Your task to perform on an android device: move a message to another label in the gmail app Image 0: 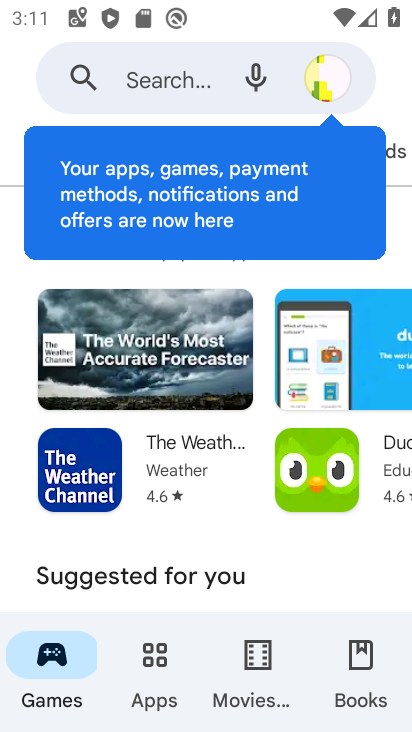
Step 0: press home button
Your task to perform on an android device: move a message to another label in the gmail app Image 1: 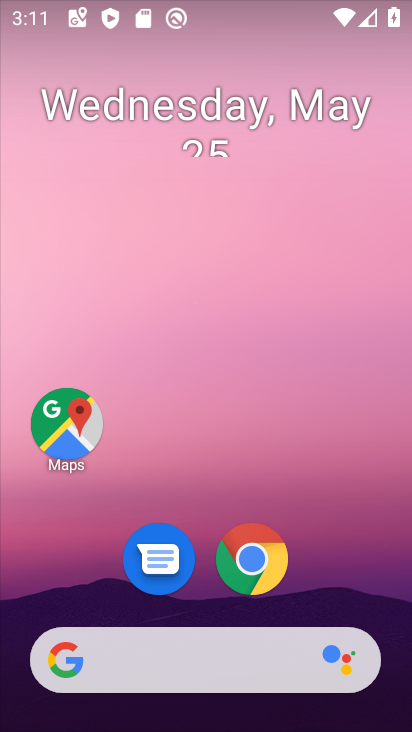
Step 1: drag from (208, 605) to (239, 81)
Your task to perform on an android device: move a message to another label in the gmail app Image 2: 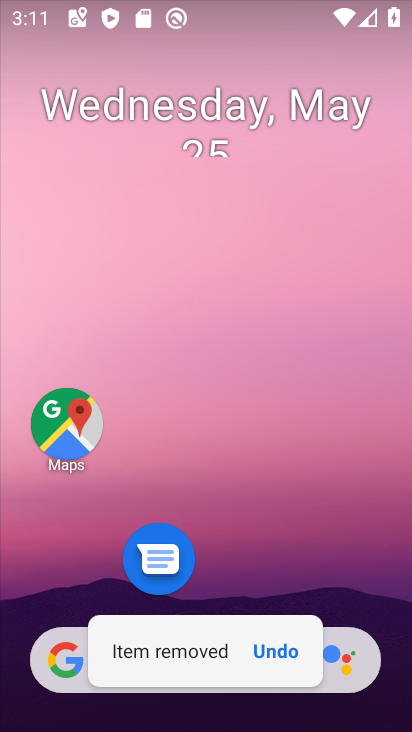
Step 2: click (281, 649)
Your task to perform on an android device: move a message to another label in the gmail app Image 3: 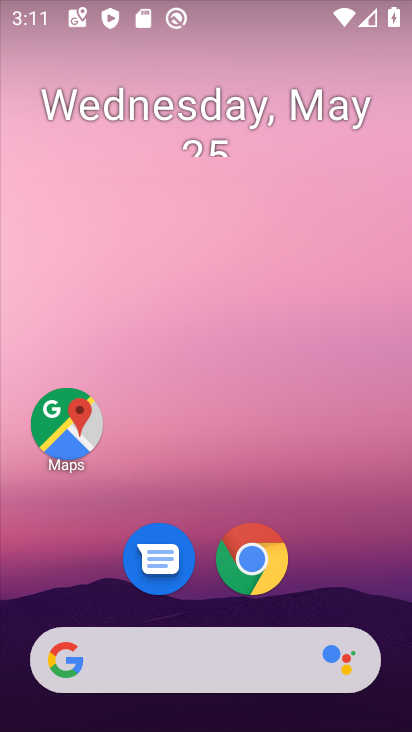
Step 3: drag from (314, 601) to (325, 27)
Your task to perform on an android device: move a message to another label in the gmail app Image 4: 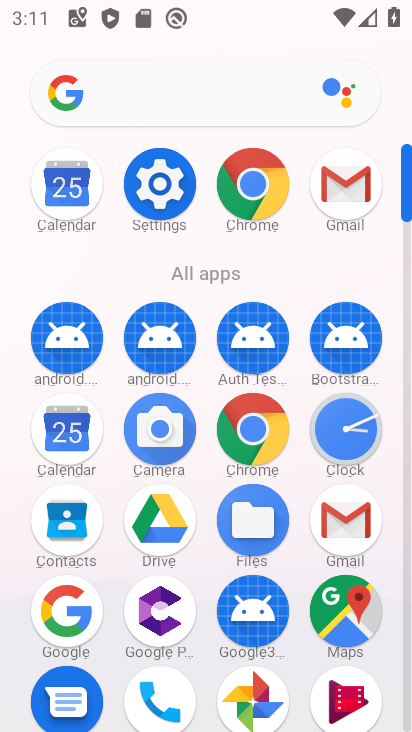
Step 4: click (343, 174)
Your task to perform on an android device: move a message to another label in the gmail app Image 5: 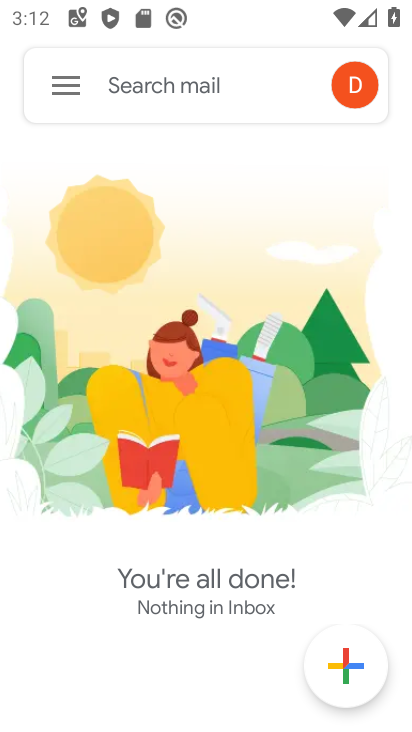
Step 5: task complete